Your task to perform on an android device: Open Google Chrome and click the shortcut for Amazon.com Image 0: 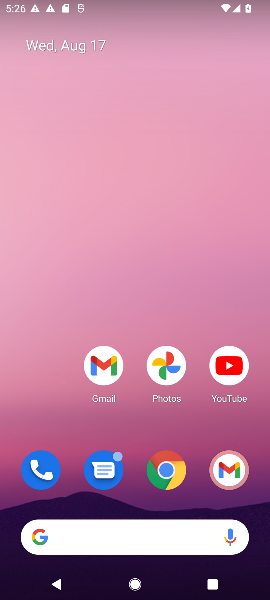
Step 0: drag from (140, 497) to (168, 60)
Your task to perform on an android device: Open Google Chrome and click the shortcut for Amazon.com Image 1: 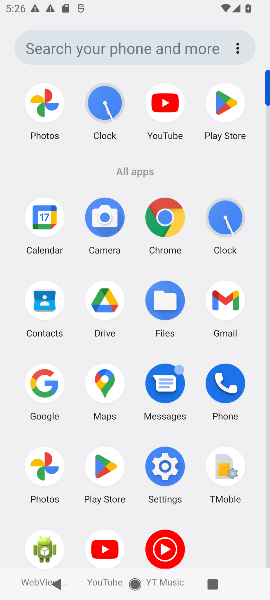
Step 1: click (160, 215)
Your task to perform on an android device: Open Google Chrome and click the shortcut for Amazon.com Image 2: 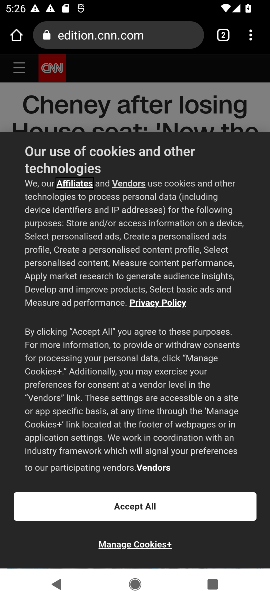
Step 2: click (255, 40)
Your task to perform on an android device: Open Google Chrome and click the shortcut for Amazon.com Image 3: 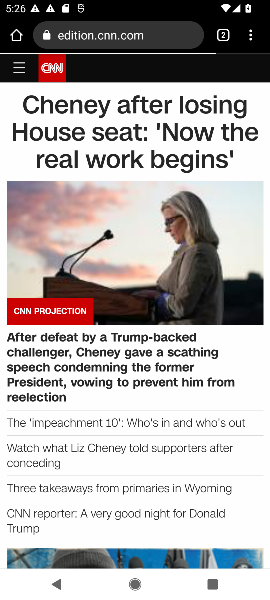
Step 3: click (243, 36)
Your task to perform on an android device: Open Google Chrome and click the shortcut for Amazon.com Image 4: 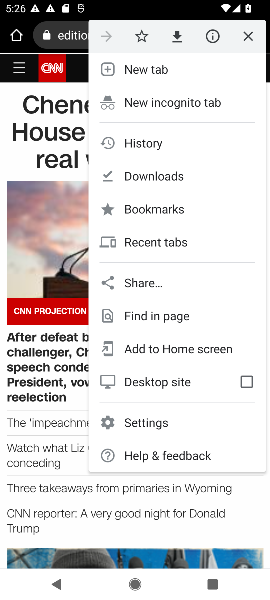
Step 4: click (153, 68)
Your task to perform on an android device: Open Google Chrome and click the shortcut for Amazon.com Image 5: 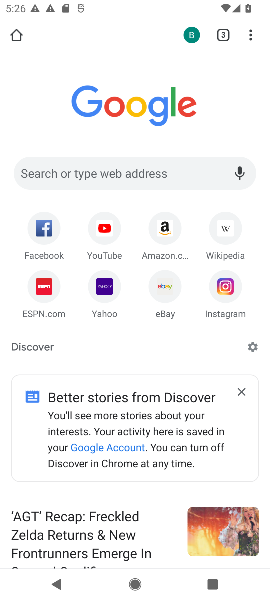
Step 5: click (161, 237)
Your task to perform on an android device: Open Google Chrome and click the shortcut for Amazon.com Image 6: 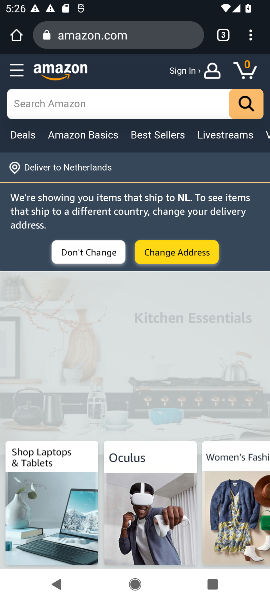
Step 6: task complete